Your task to perform on an android device: Search for 4k TVs on Best Buy. Image 0: 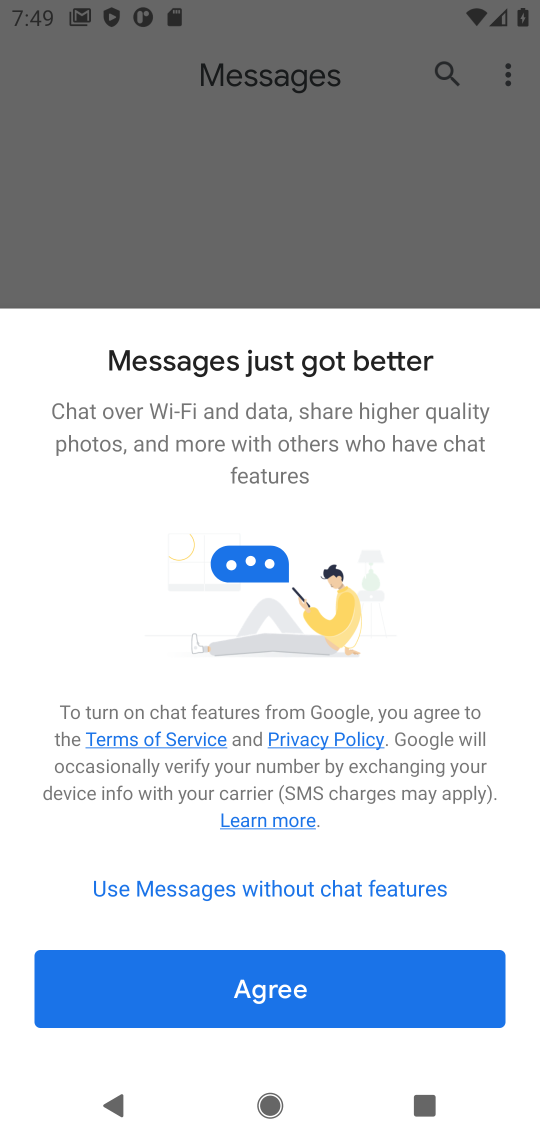
Step 0: press home button
Your task to perform on an android device: Search for 4k TVs on Best Buy. Image 1: 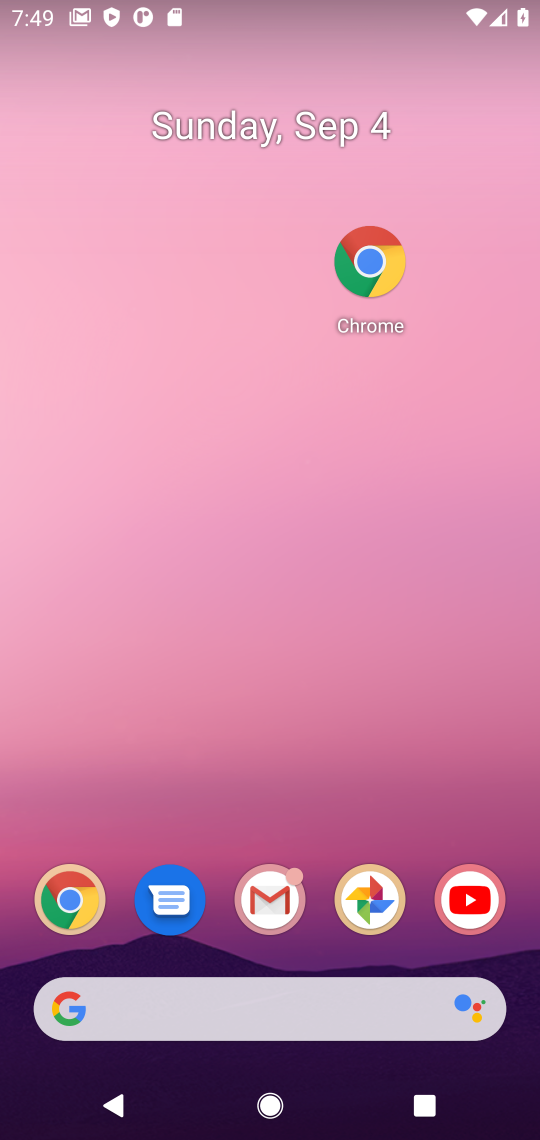
Step 1: click (378, 305)
Your task to perform on an android device: Search for 4k TVs on Best Buy. Image 2: 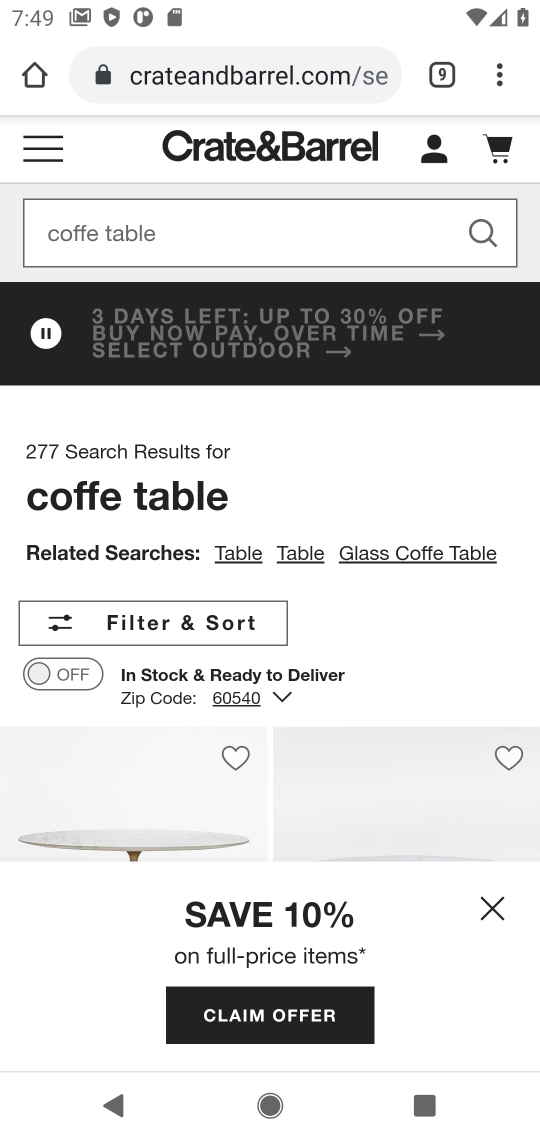
Step 2: click (421, 75)
Your task to perform on an android device: Search for 4k TVs on Best Buy. Image 3: 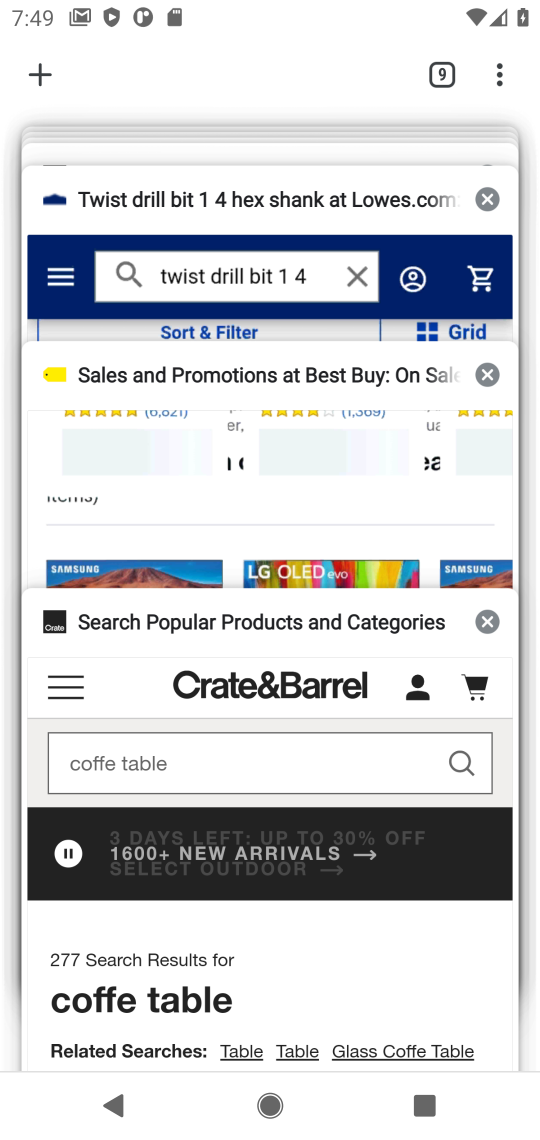
Step 3: click (33, 74)
Your task to perform on an android device: Search for 4k TVs on Best Buy. Image 4: 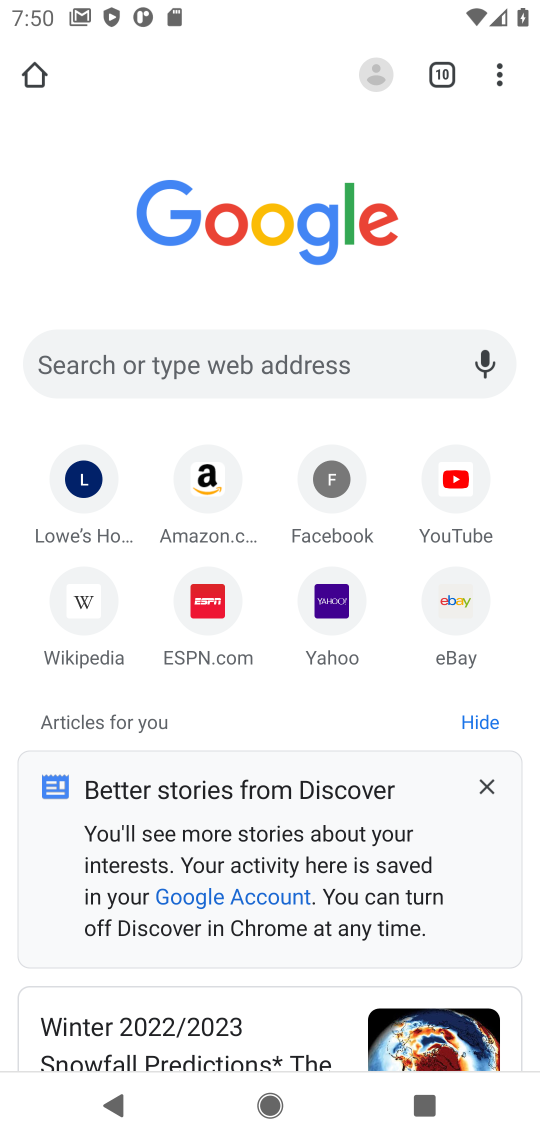
Step 4: click (140, 362)
Your task to perform on an android device: Search for 4k TVs on Best Buy. Image 5: 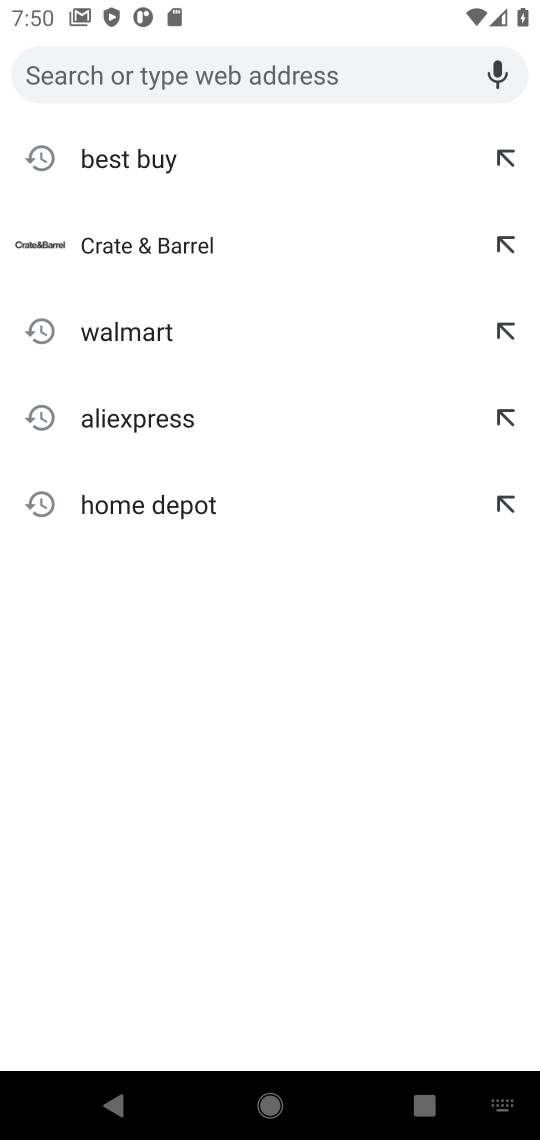
Step 5: click (120, 148)
Your task to perform on an android device: Search for 4k TVs on Best Buy. Image 6: 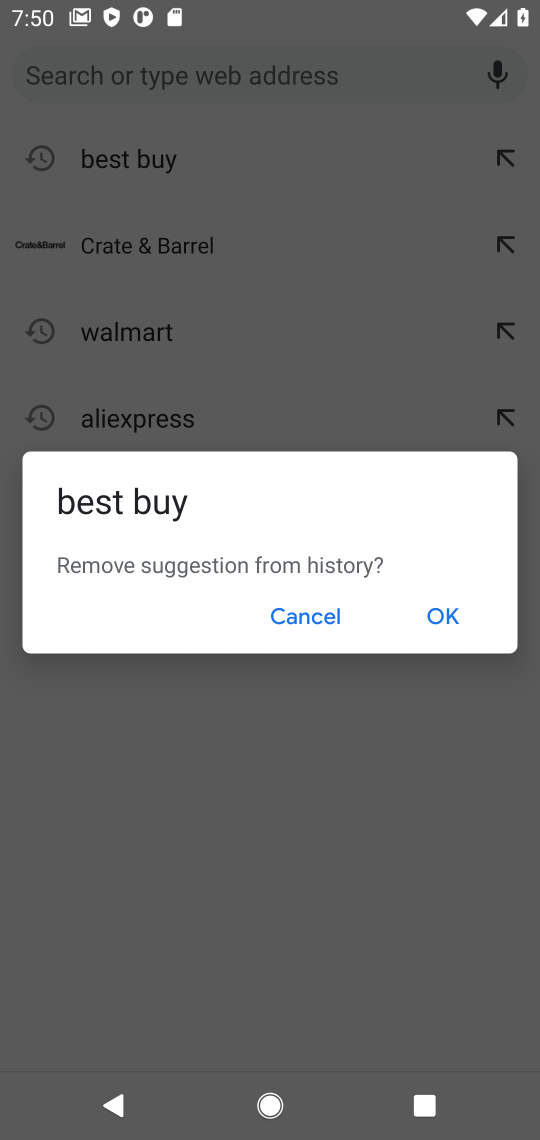
Step 6: click (316, 599)
Your task to perform on an android device: Search for 4k TVs on Best Buy. Image 7: 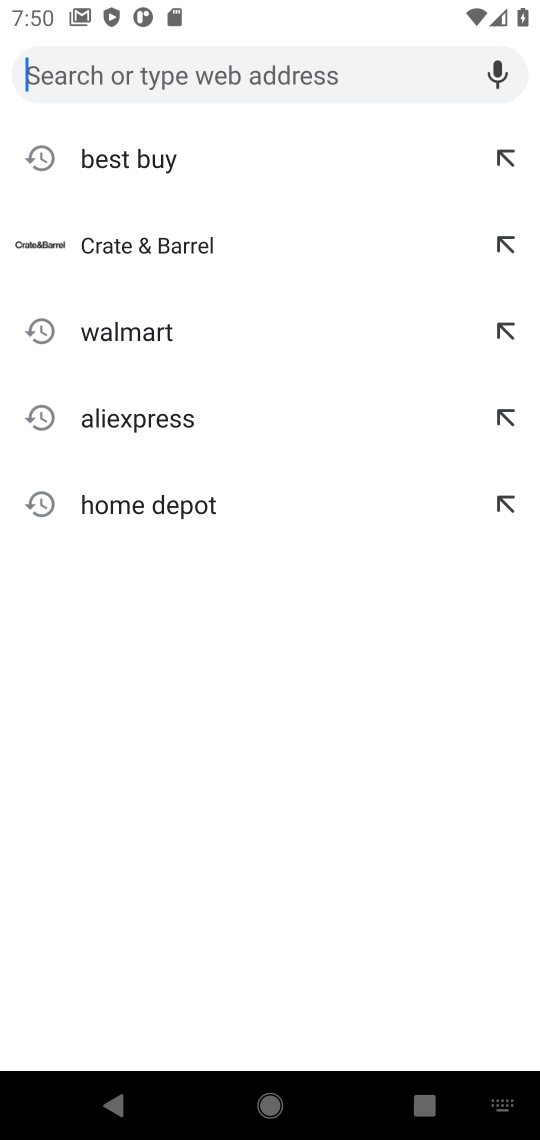
Step 7: click (128, 144)
Your task to perform on an android device: Search for 4k TVs on Best Buy. Image 8: 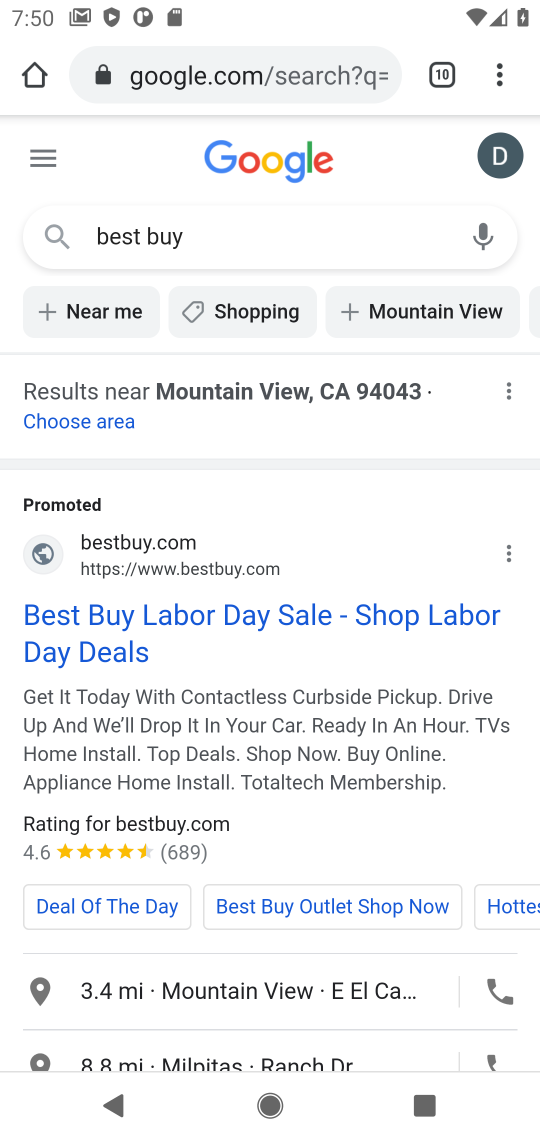
Step 8: click (71, 659)
Your task to perform on an android device: Search for 4k TVs on Best Buy. Image 9: 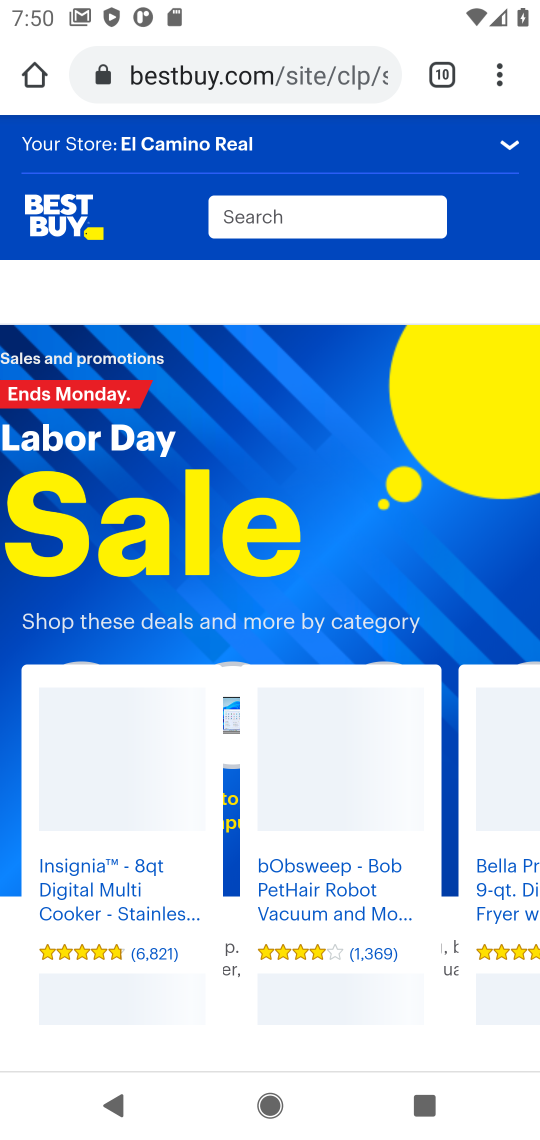
Step 9: click (312, 209)
Your task to perform on an android device: Search for 4k TVs on Best Buy. Image 10: 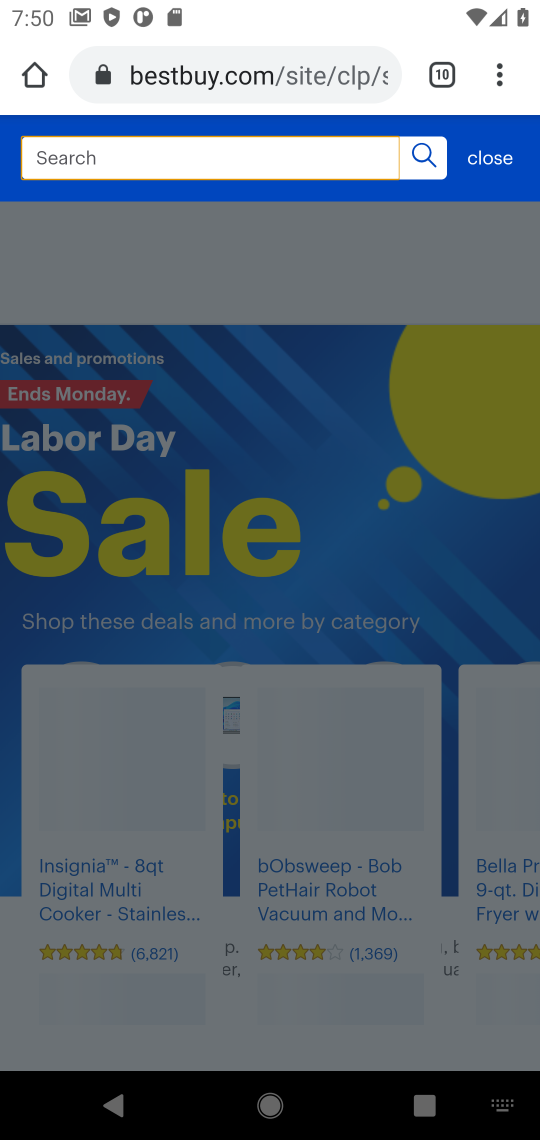
Step 10: type "4k tv"
Your task to perform on an android device: Search for 4k TVs on Best Buy. Image 11: 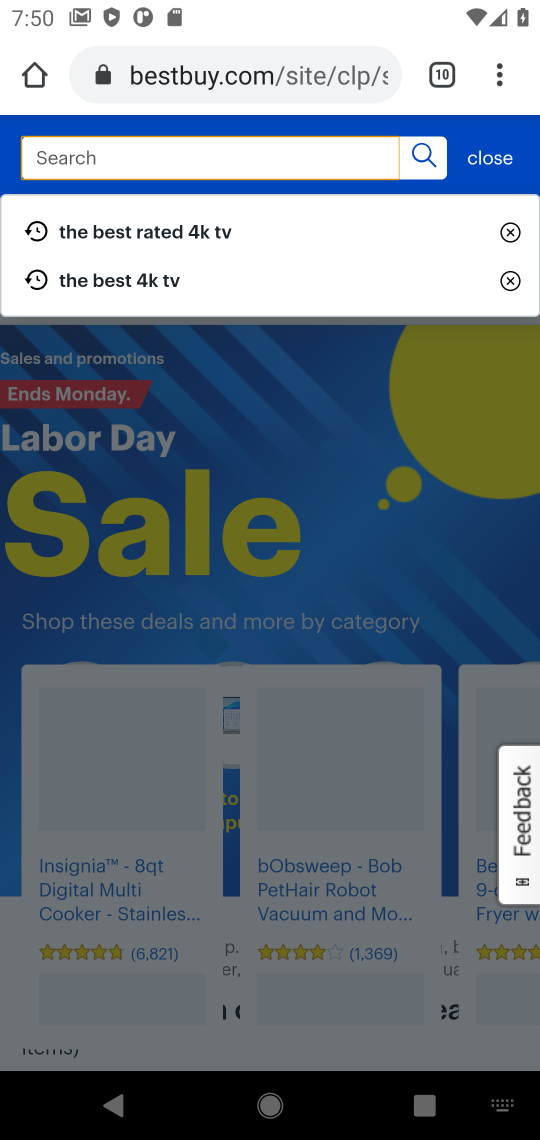
Step 11: click (170, 284)
Your task to perform on an android device: Search for 4k TVs on Best Buy. Image 12: 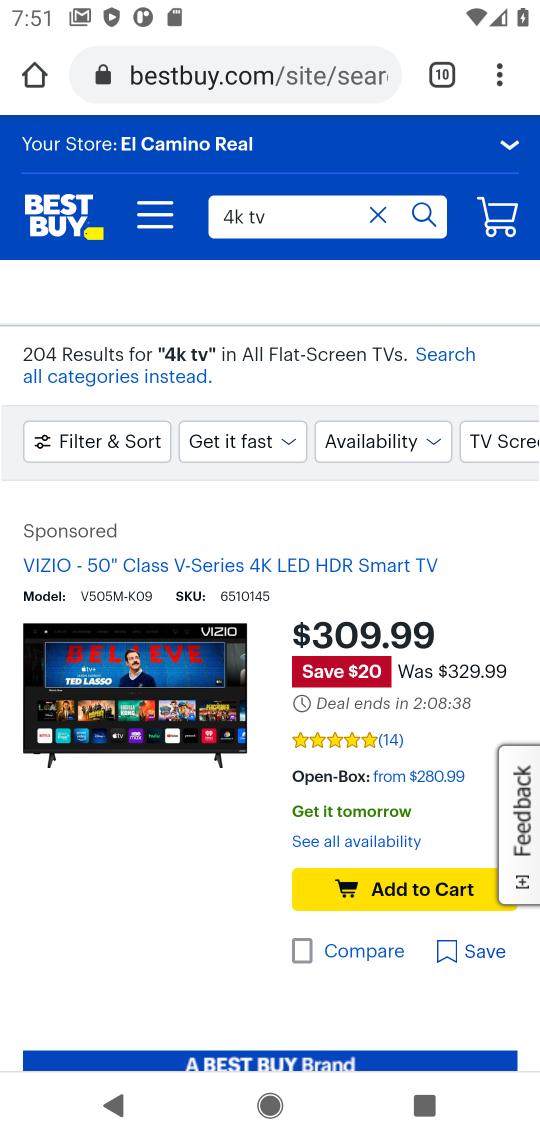
Step 12: task complete